Your task to perform on an android device: turn on location history Image 0: 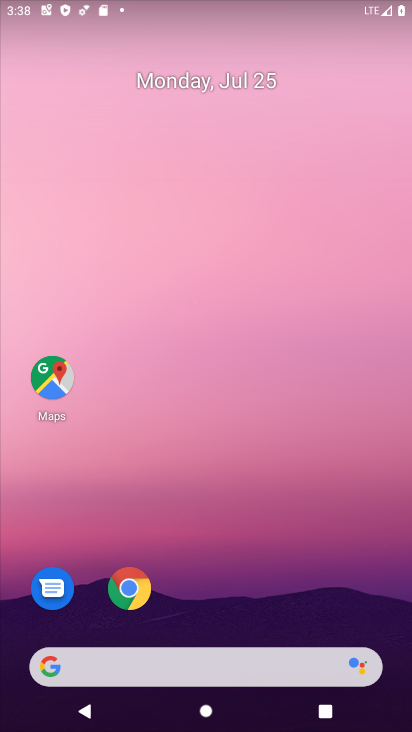
Step 0: drag from (219, 587) to (275, 27)
Your task to perform on an android device: turn on location history Image 1: 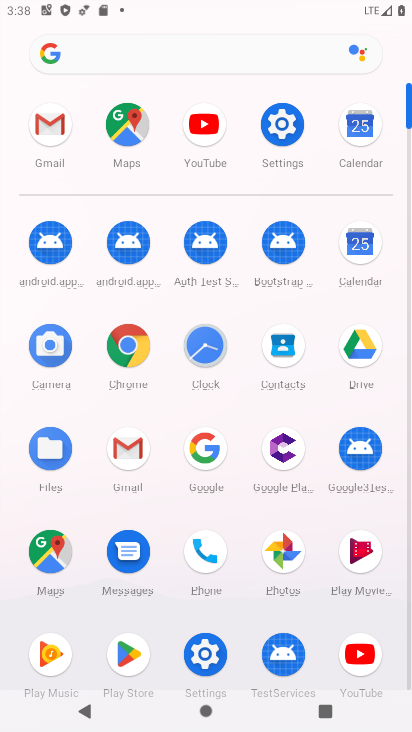
Step 1: click (270, 107)
Your task to perform on an android device: turn on location history Image 2: 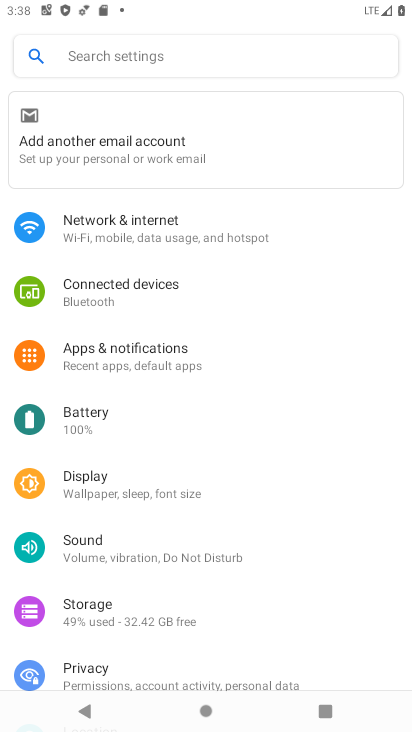
Step 2: drag from (107, 640) to (176, 219)
Your task to perform on an android device: turn on location history Image 3: 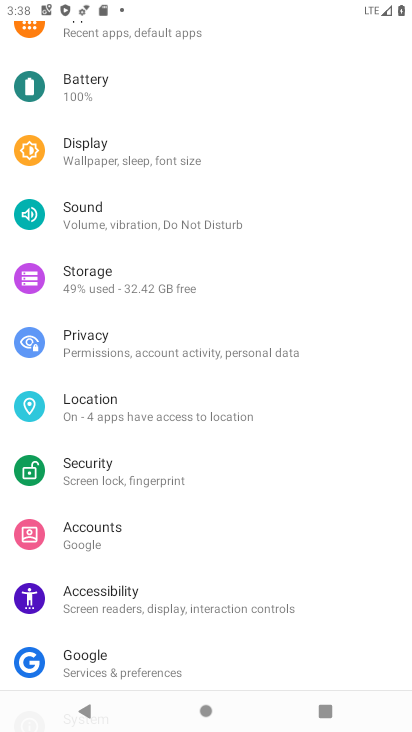
Step 3: click (152, 419)
Your task to perform on an android device: turn on location history Image 4: 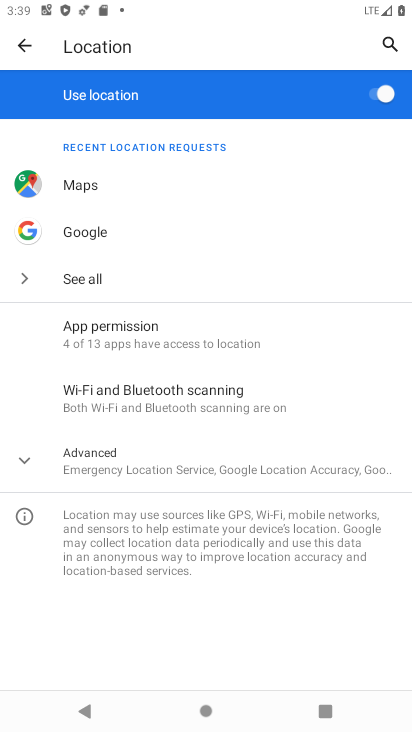
Step 4: click (161, 475)
Your task to perform on an android device: turn on location history Image 5: 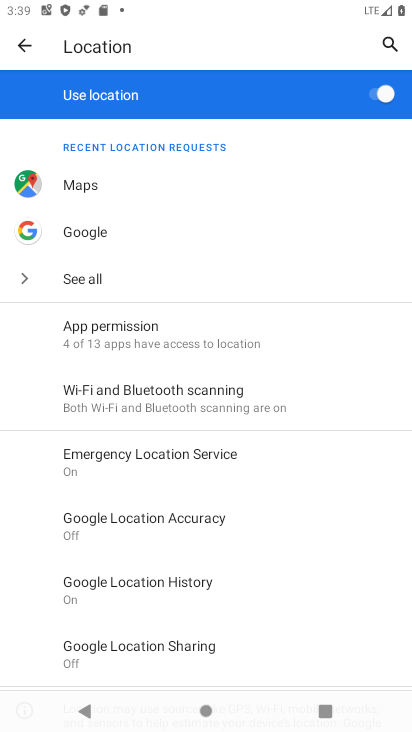
Step 5: click (187, 594)
Your task to perform on an android device: turn on location history Image 6: 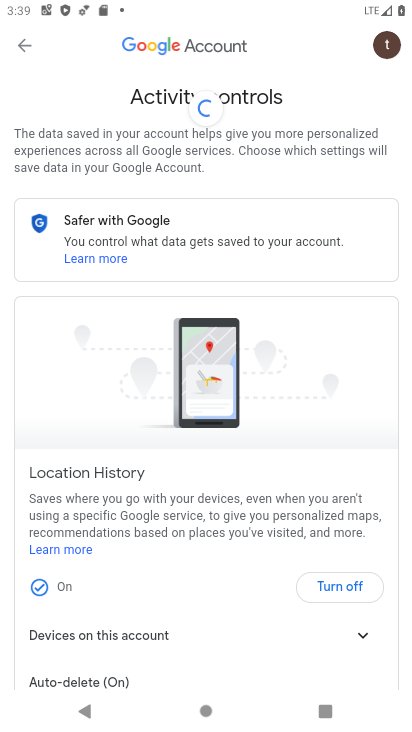
Step 6: task complete